Your task to perform on an android device: Go to Reddit.com Image 0: 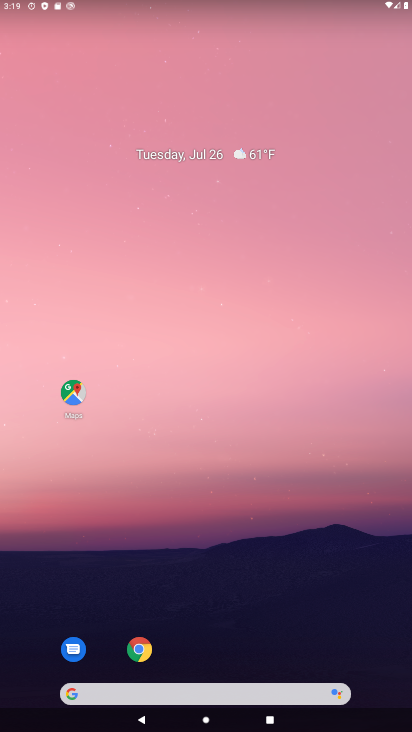
Step 0: click (96, 699)
Your task to perform on an android device: Go to Reddit.com Image 1: 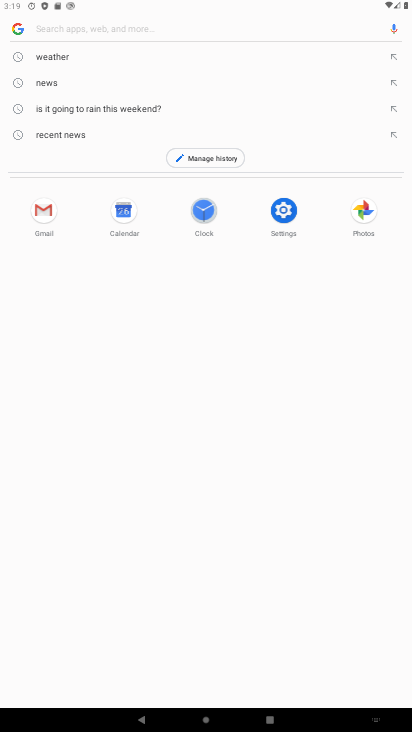
Step 1: type " Reddit.com"
Your task to perform on an android device: Go to Reddit.com Image 2: 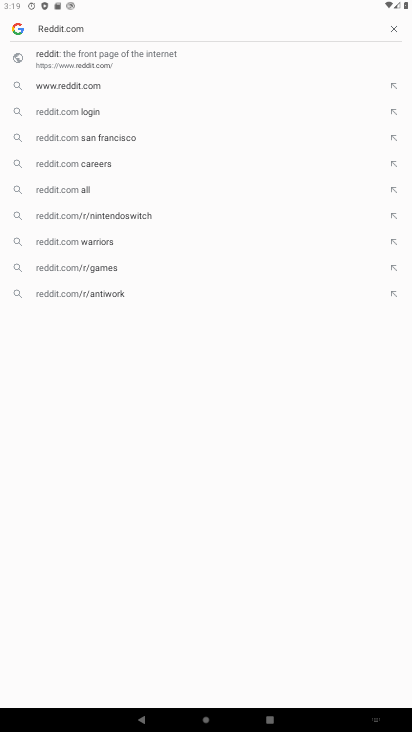
Step 2: click (83, 86)
Your task to perform on an android device: Go to Reddit.com Image 3: 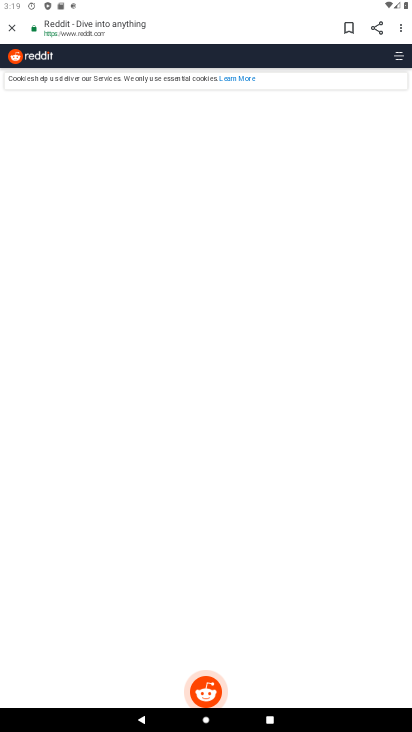
Step 3: task complete